Your task to perform on an android device: turn off location Image 0: 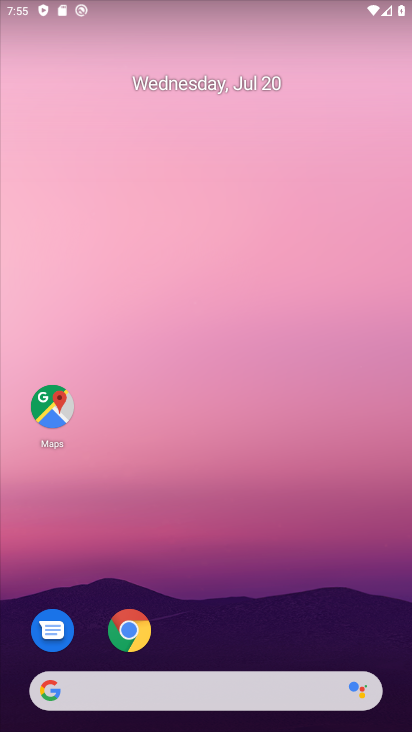
Step 0: drag from (245, 655) to (266, 204)
Your task to perform on an android device: turn off location Image 1: 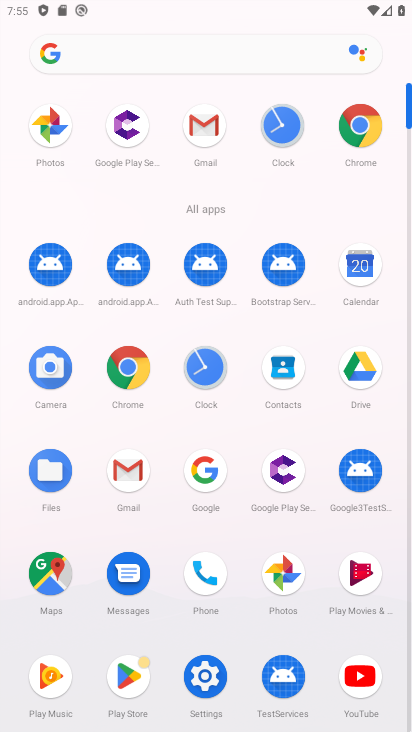
Step 1: click (201, 682)
Your task to perform on an android device: turn off location Image 2: 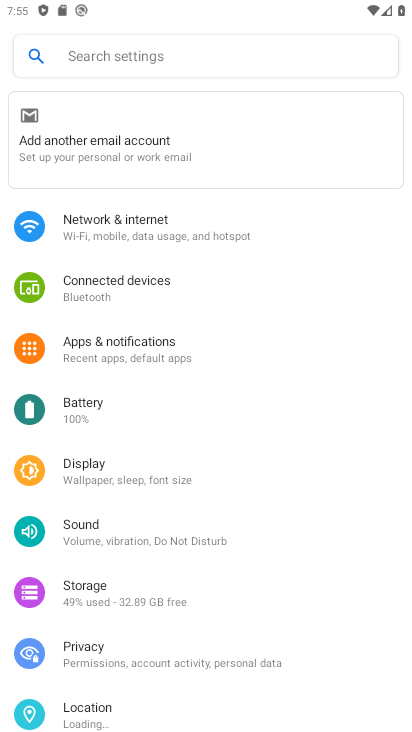
Step 2: click (96, 706)
Your task to perform on an android device: turn off location Image 3: 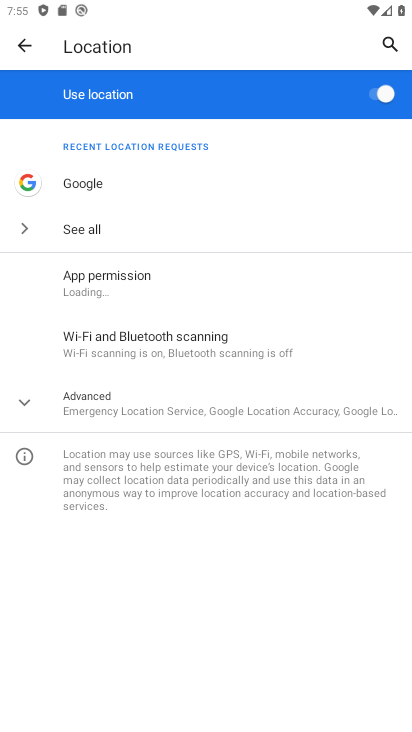
Step 3: click (381, 101)
Your task to perform on an android device: turn off location Image 4: 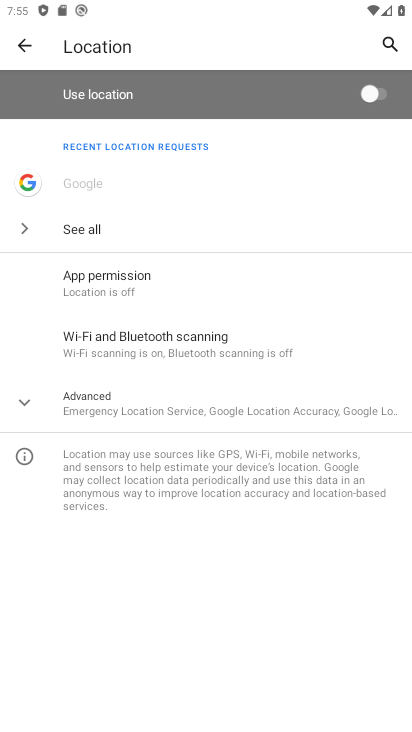
Step 4: task complete